Your task to perform on an android device: Search for Italian restaurants on Maps Image 0: 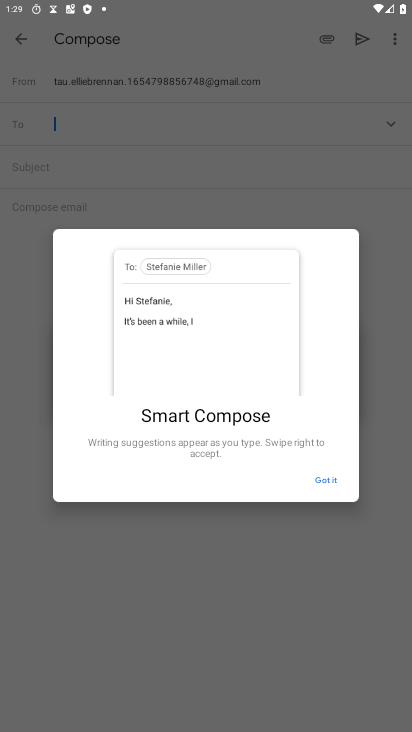
Step 0: press home button
Your task to perform on an android device: Search for Italian restaurants on Maps Image 1: 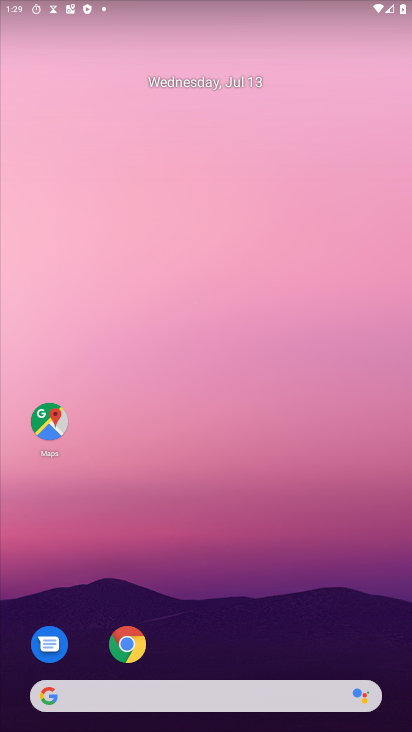
Step 1: click (400, 533)
Your task to perform on an android device: Search for Italian restaurants on Maps Image 2: 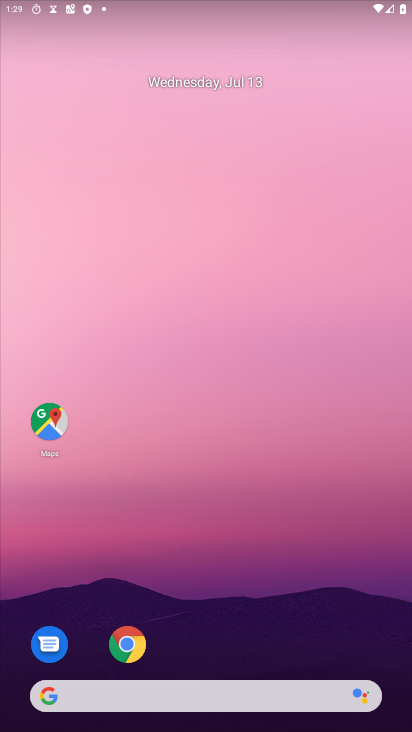
Step 2: click (54, 414)
Your task to perform on an android device: Search for Italian restaurants on Maps Image 3: 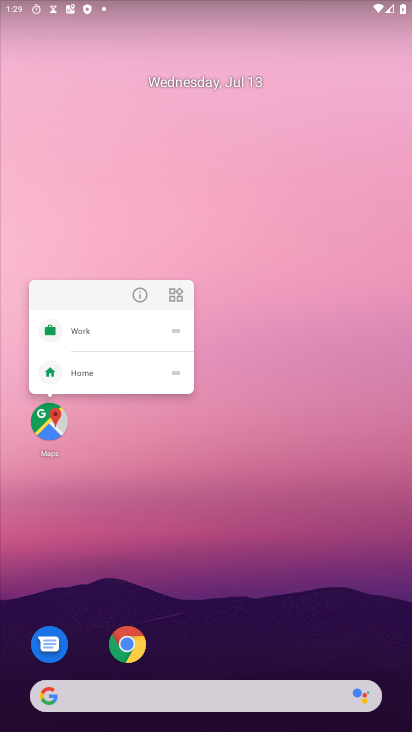
Step 3: click (62, 428)
Your task to perform on an android device: Search for Italian restaurants on Maps Image 4: 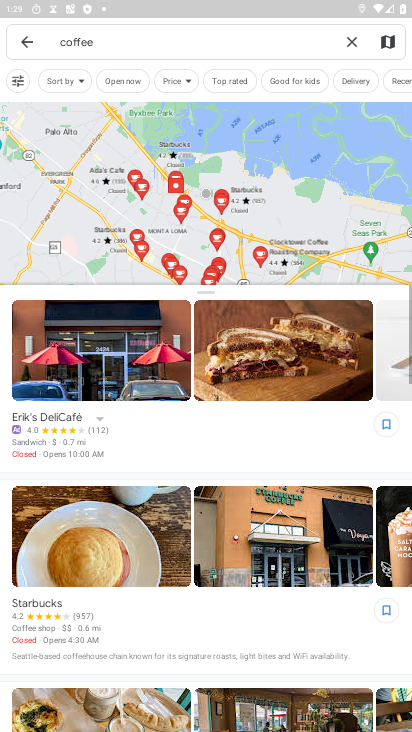
Step 4: click (346, 44)
Your task to perform on an android device: Search for Italian restaurants on Maps Image 5: 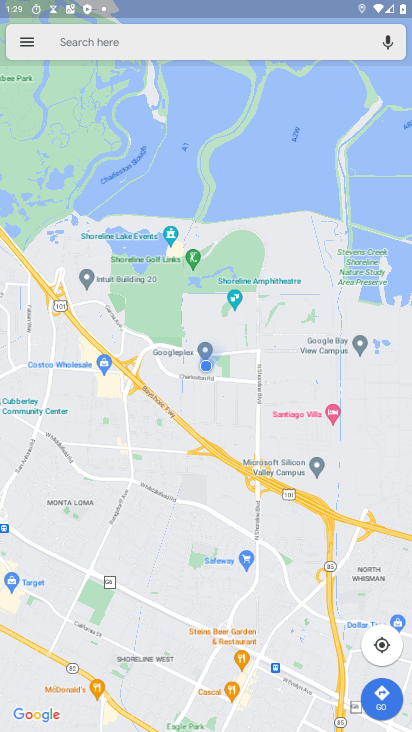
Step 5: type "Italian restaurants"
Your task to perform on an android device: Search for Italian restaurants on Maps Image 6: 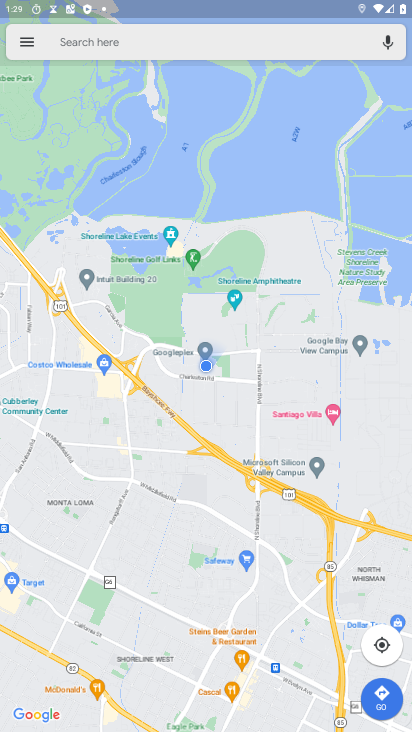
Step 6: click (83, 43)
Your task to perform on an android device: Search for Italian restaurants on Maps Image 7: 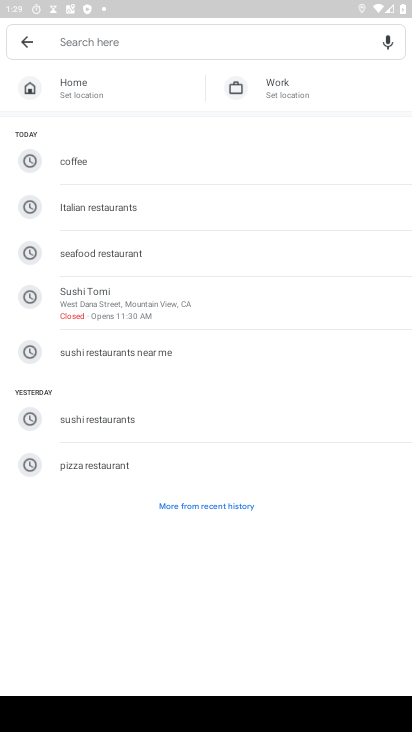
Step 7: click (75, 205)
Your task to perform on an android device: Search for Italian restaurants on Maps Image 8: 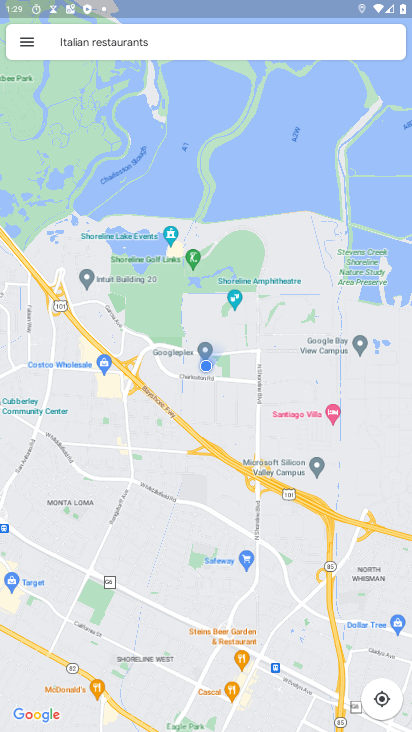
Step 8: press enter
Your task to perform on an android device: Search for Italian restaurants on Maps Image 9: 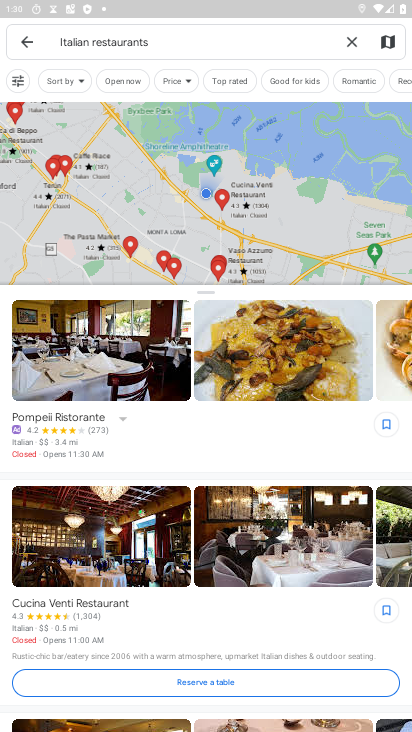
Step 9: task complete